Your task to perform on an android device: Open calendar and show me the second week of next month Image 0: 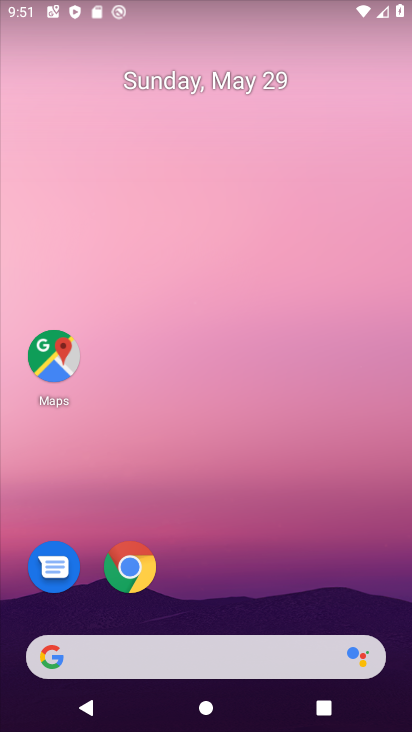
Step 0: drag from (352, 601) to (298, 79)
Your task to perform on an android device: Open calendar and show me the second week of next month Image 1: 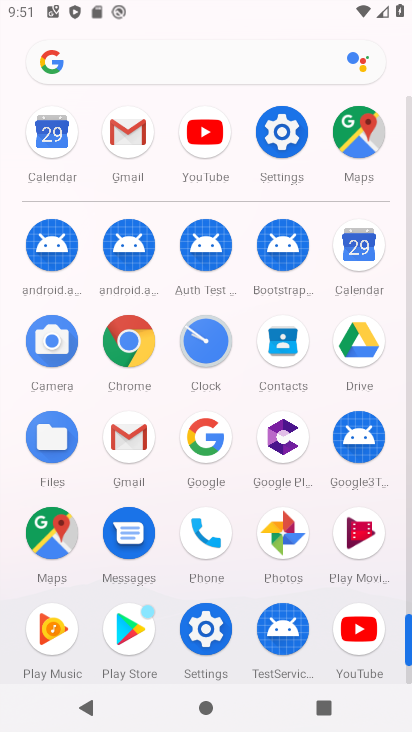
Step 1: click (358, 245)
Your task to perform on an android device: Open calendar and show me the second week of next month Image 2: 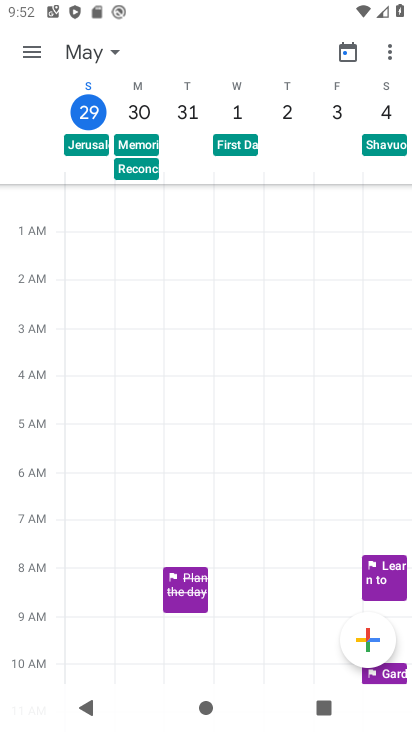
Step 2: click (117, 48)
Your task to perform on an android device: Open calendar and show me the second week of next month Image 3: 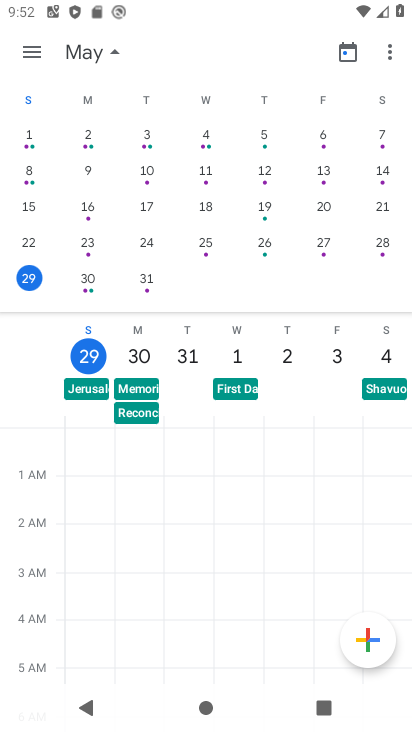
Step 3: drag from (391, 184) to (6, 190)
Your task to perform on an android device: Open calendar and show me the second week of next month Image 4: 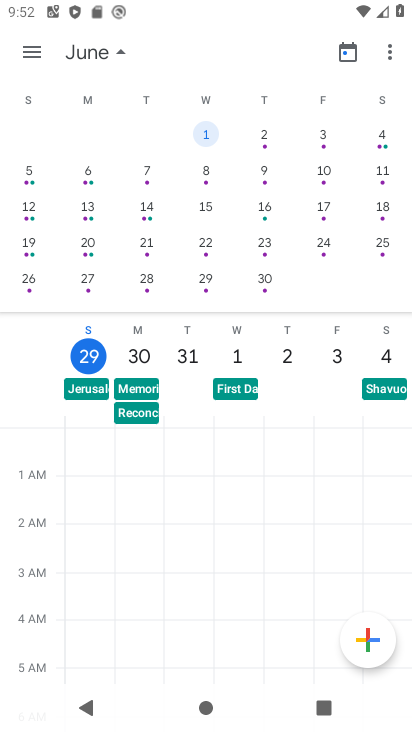
Step 4: click (29, 205)
Your task to perform on an android device: Open calendar and show me the second week of next month Image 5: 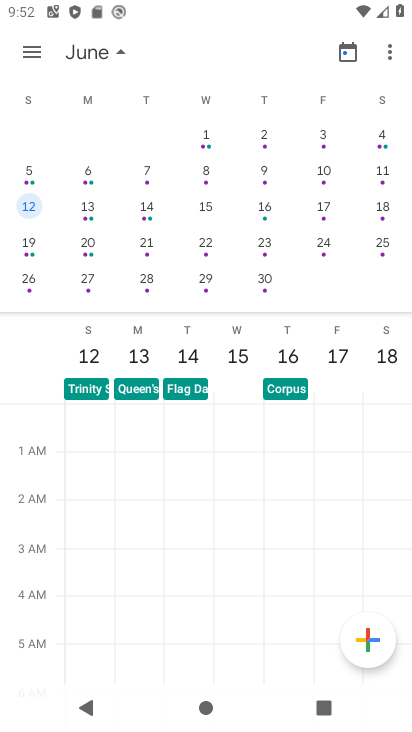
Step 5: task complete